Your task to perform on an android device: Open the calendar and show me this week's events Image 0: 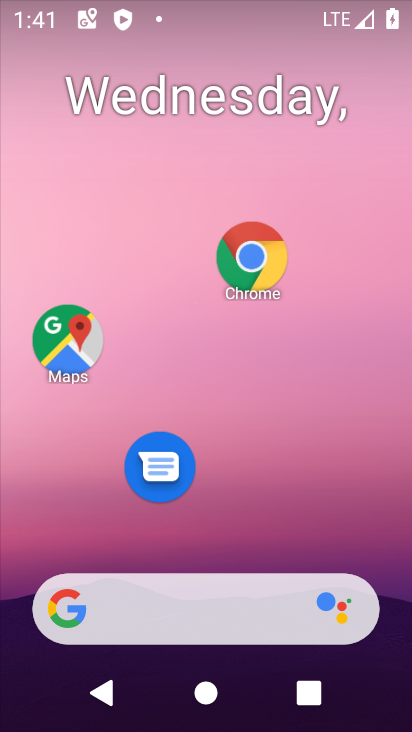
Step 0: drag from (276, 570) to (228, 41)
Your task to perform on an android device: Open the calendar and show me this week's events Image 1: 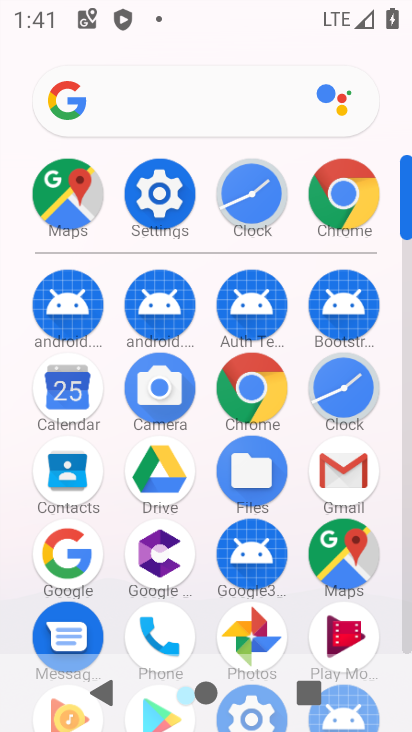
Step 1: click (43, 377)
Your task to perform on an android device: Open the calendar and show me this week's events Image 2: 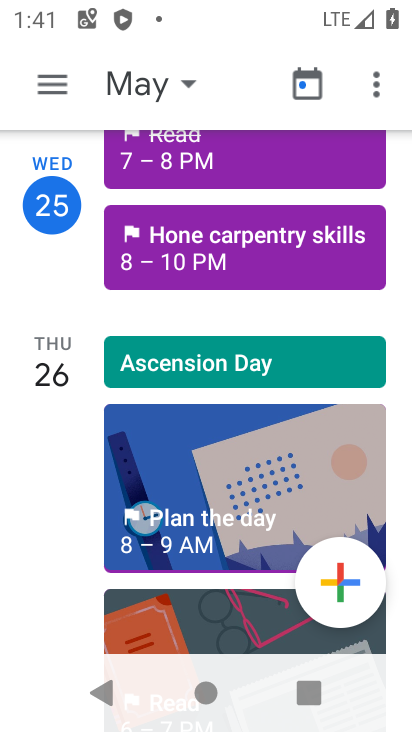
Step 2: click (59, 89)
Your task to perform on an android device: Open the calendar and show me this week's events Image 3: 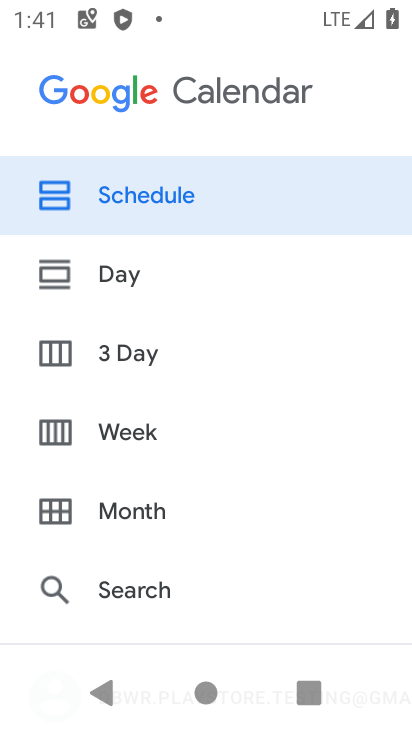
Step 3: click (135, 193)
Your task to perform on an android device: Open the calendar and show me this week's events Image 4: 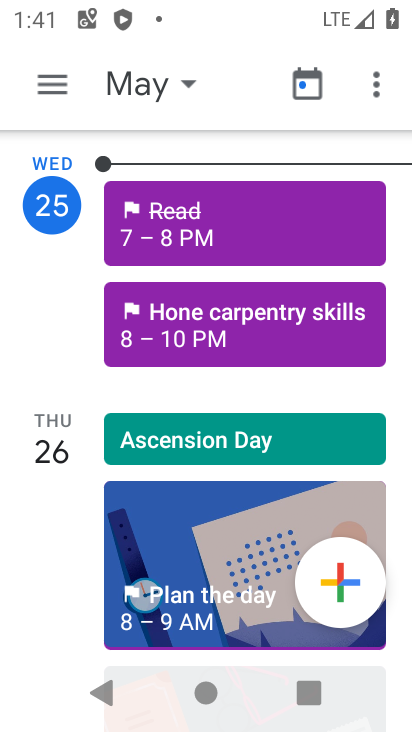
Step 4: task complete